Your task to perform on an android device: Open the calendar app, open the side menu, and click the "Day" option Image 0: 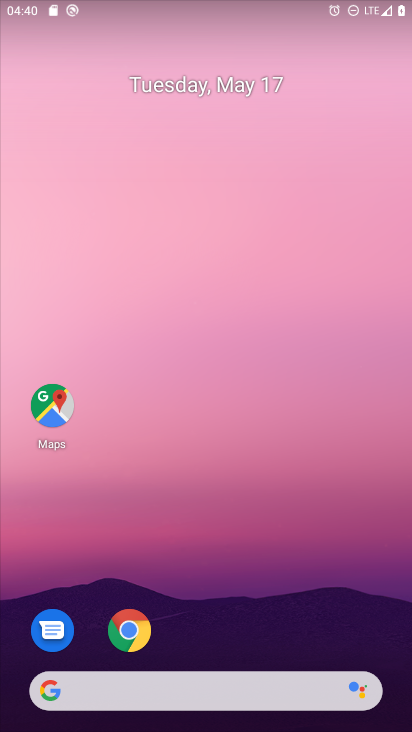
Step 0: drag from (229, 623) to (295, 100)
Your task to perform on an android device: Open the calendar app, open the side menu, and click the "Day" option Image 1: 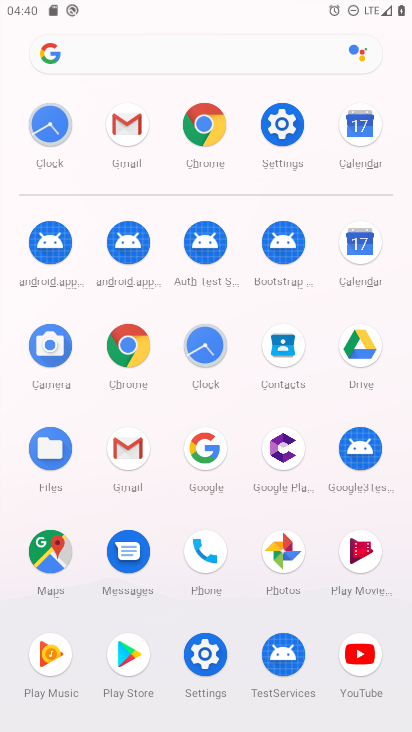
Step 1: click (359, 246)
Your task to perform on an android device: Open the calendar app, open the side menu, and click the "Day" option Image 2: 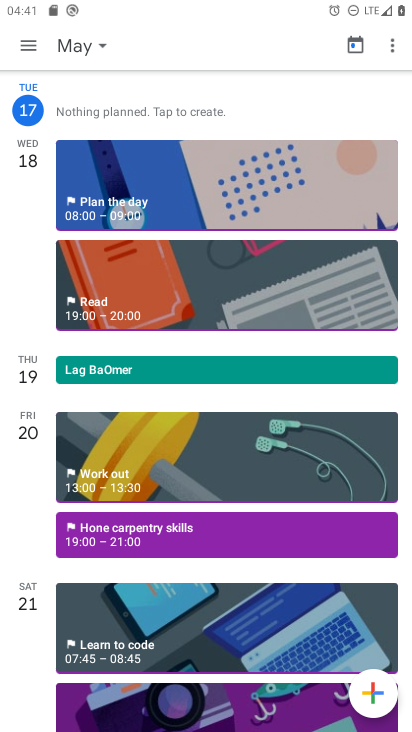
Step 2: click (30, 41)
Your task to perform on an android device: Open the calendar app, open the side menu, and click the "Day" option Image 3: 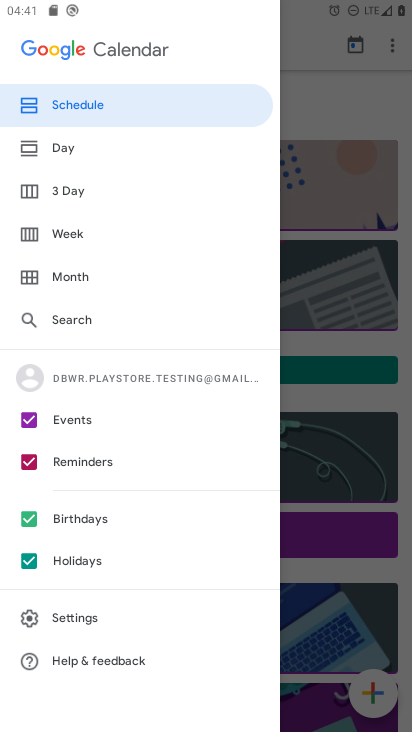
Step 3: click (70, 145)
Your task to perform on an android device: Open the calendar app, open the side menu, and click the "Day" option Image 4: 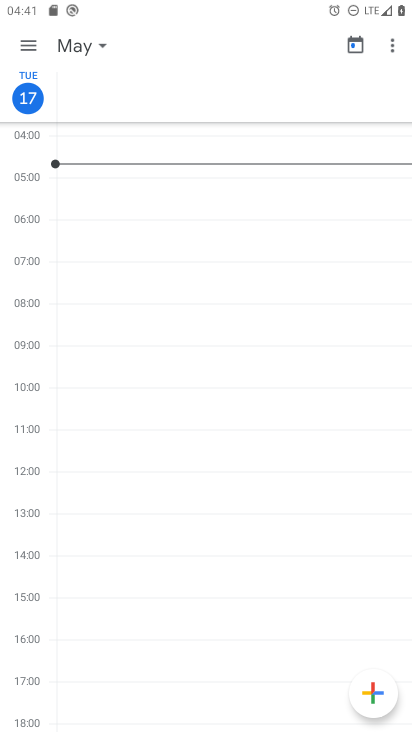
Step 4: task complete